Your task to perform on an android device: move an email to a new category in the gmail app Image 0: 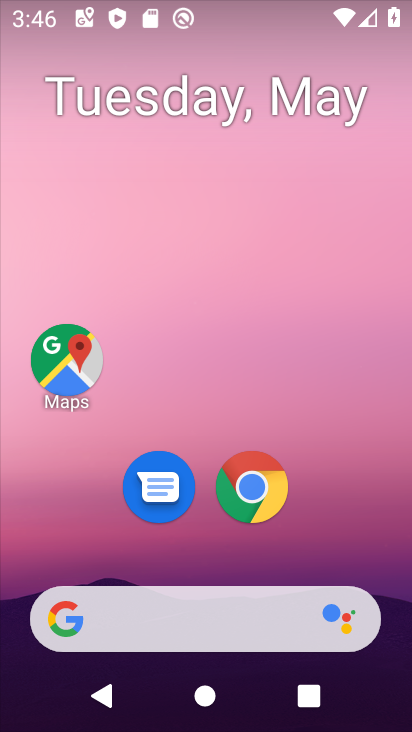
Step 0: drag from (209, 526) to (237, 22)
Your task to perform on an android device: move an email to a new category in the gmail app Image 1: 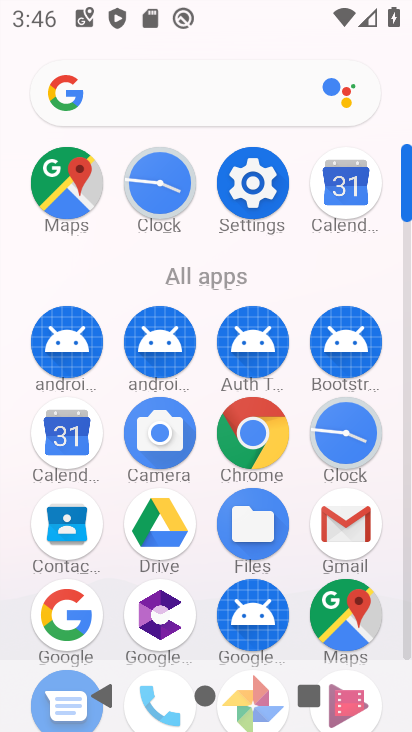
Step 1: click (361, 557)
Your task to perform on an android device: move an email to a new category in the gmail app Image 2: 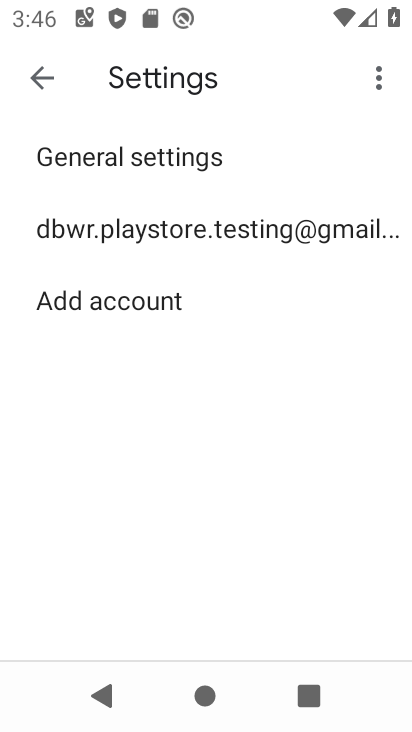
Step 2: click (38, 73)
Your task to perform on an android device: move an email to a new category in the gmail app Image 3: 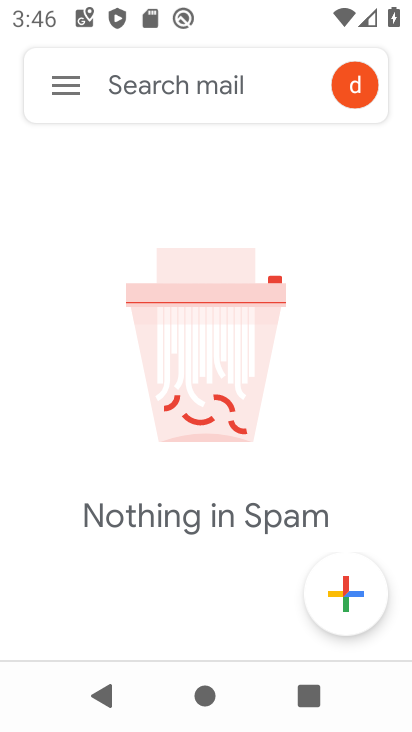
Step 3: click (46, 76)
Your task to perform on an android device: move an email to a new category in the gmail app Image 4: 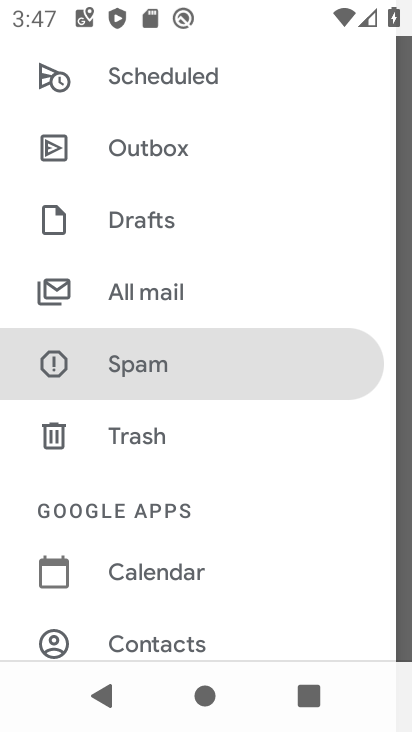
Step 4: click (178, 299)
Your task to perform on an android device: move an email to a new category in the gmail app Image 5: 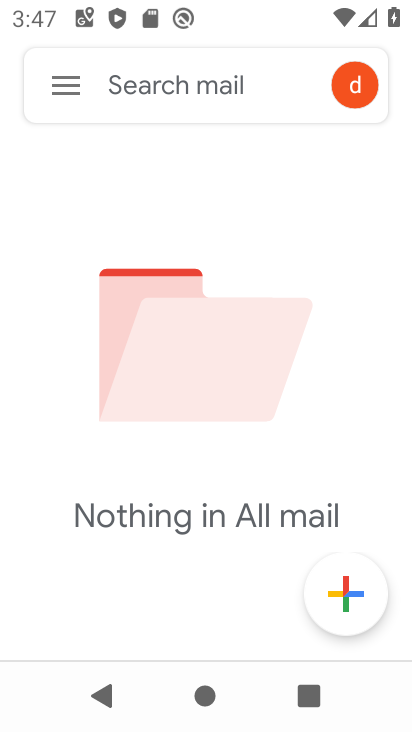
Step 5: task complete